Your task to perform on an android device: open app "Adobe Acrobat Reader: Edit PDF" (install if not already installed) Image 0: 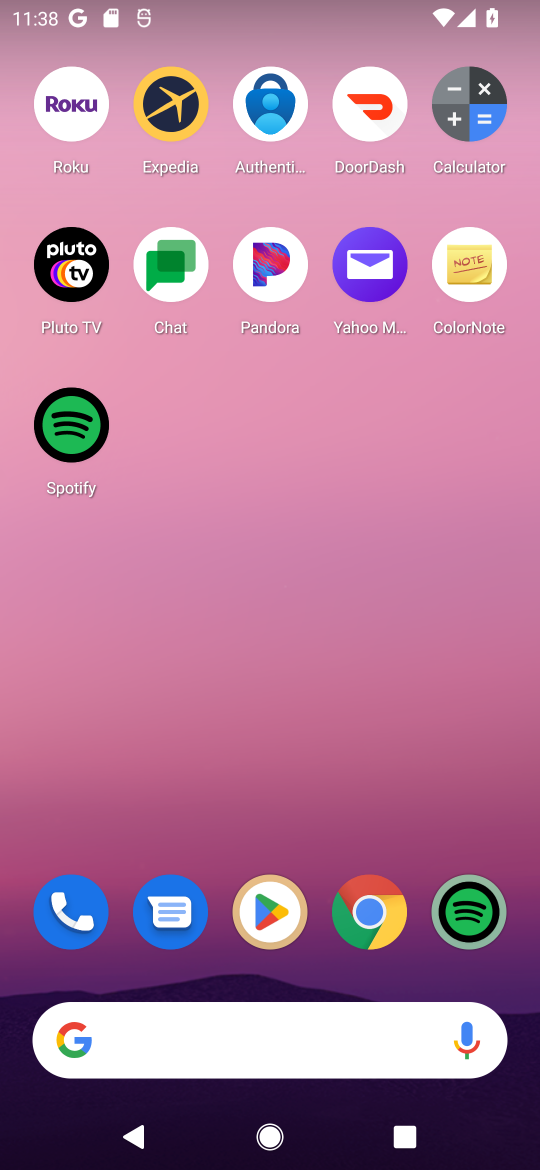
Step 0: click (258, 915)
Your task to perform on an android device: open app "Adobe Acrobat Reader: Edit PDF" (install if not already installed) Image 1: 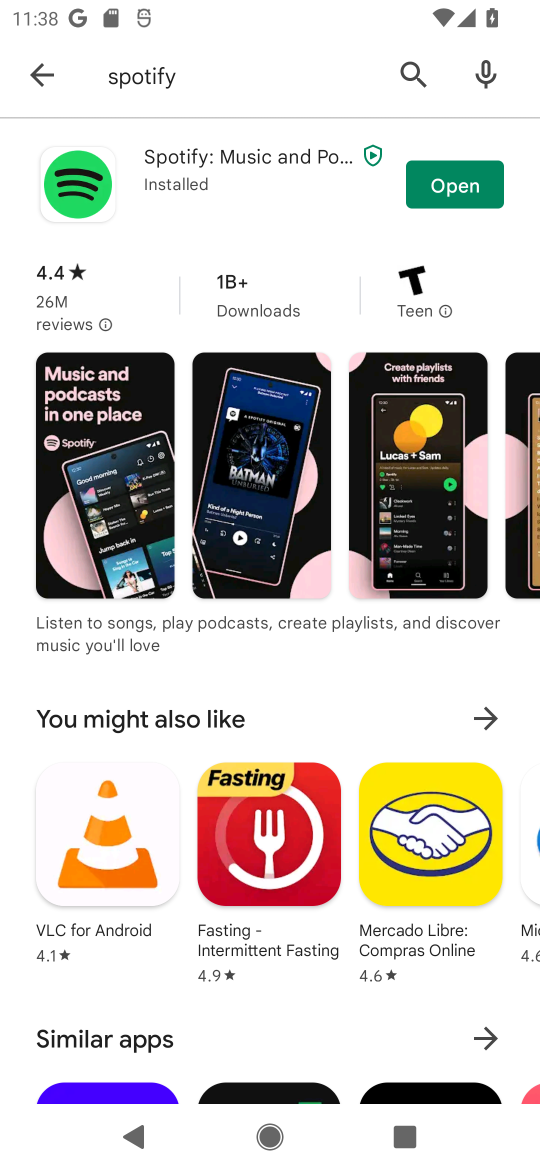
Step 1: click (409, 89)
Your task to perform on an android device: open app "Adobe Acrobat Reader: Edit PDF" (install if not already installed) Image 2: 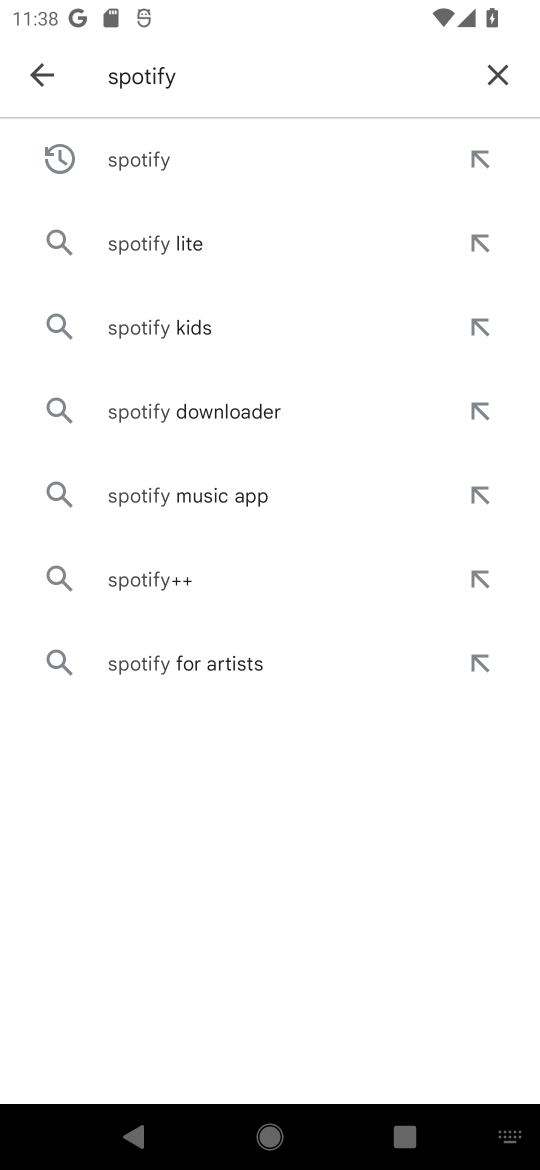
Step 2: click (495, 79)
Your task to perform on an android device: open app "Adobe Acrobat Reader: Edit PDF" (install if not already installed) Image 3: 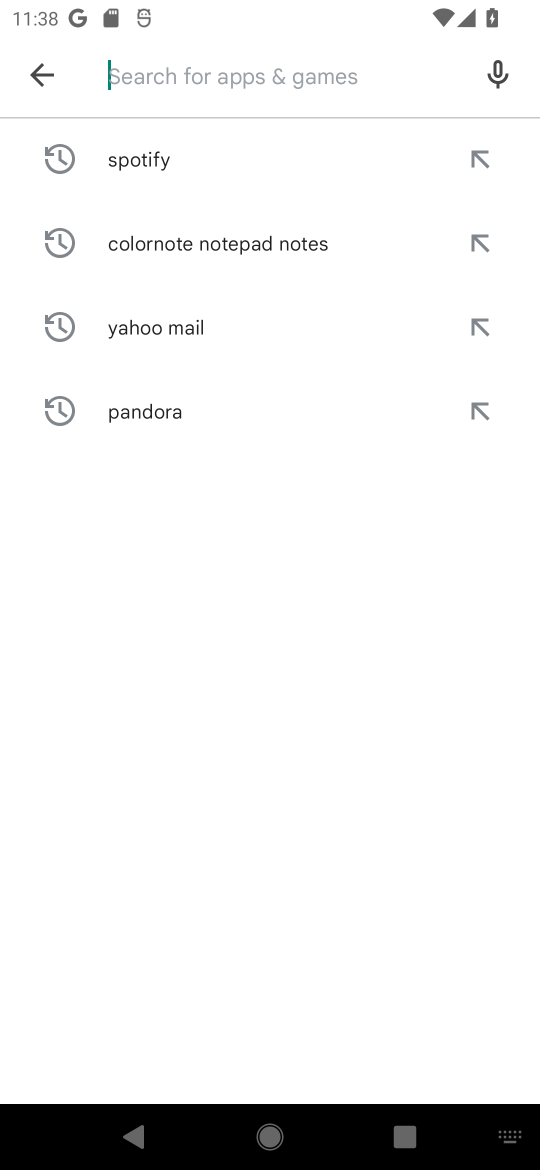
Step 3: click (162, 88)
Your task to perform on an android device: open app "Adobe Acrobat Reader: Edit PDF" (install if not already installed) Image 4: 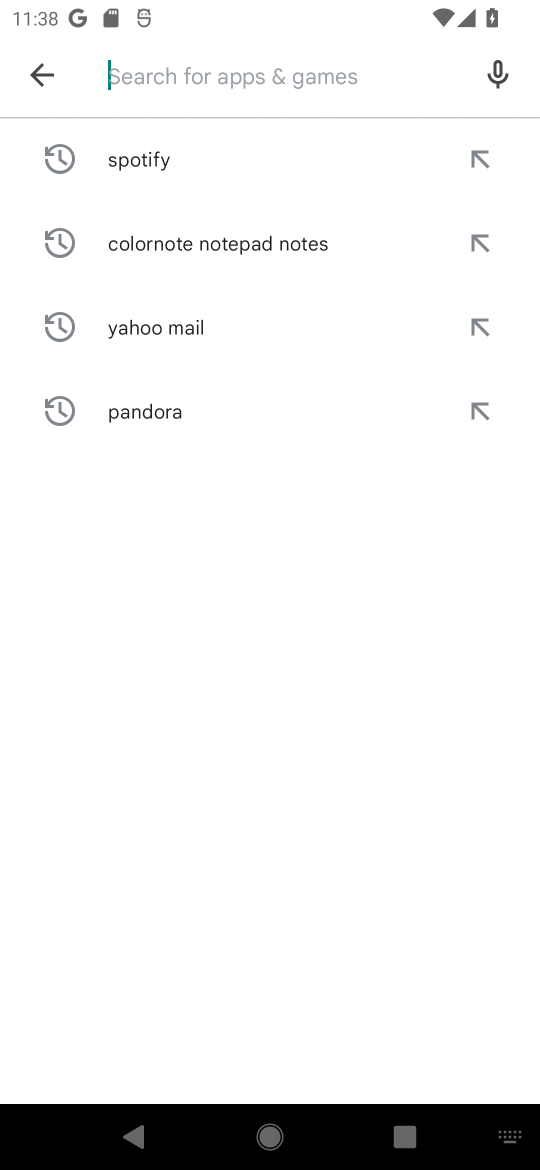
Step 4: type "Adobe Acrobat Reader"
Your task to perform on an android device: open app "Adobe Acrobat Reader: Edit PDF" (install if not already installed) Image 5: 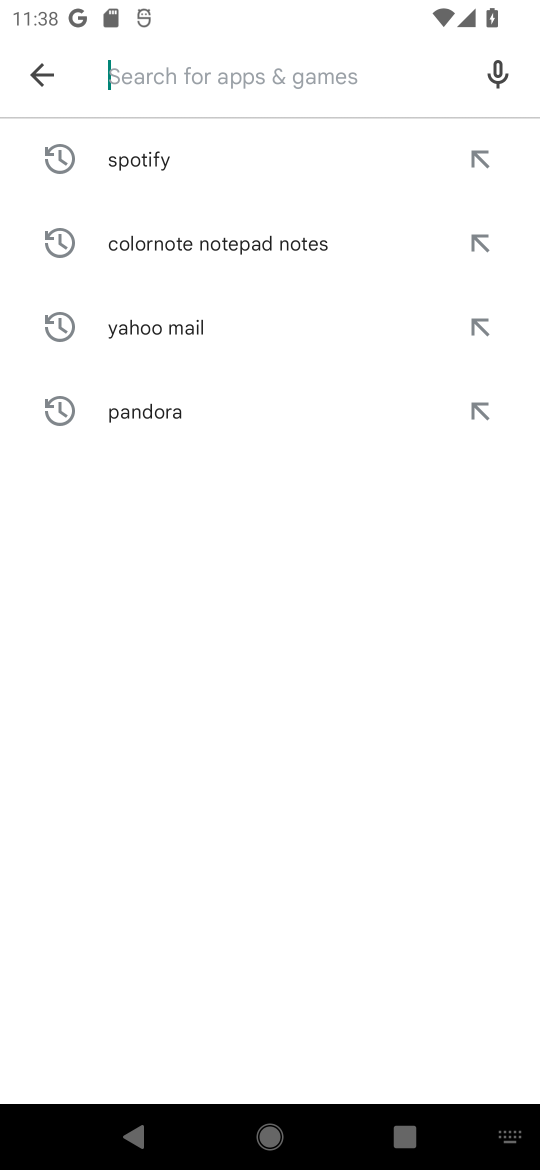
Step 5: click (410, 742)
Your task to perform on an android device: open app "Adobe Acrobat Reader: Edit PDF" (install if not already installed) Image 6: 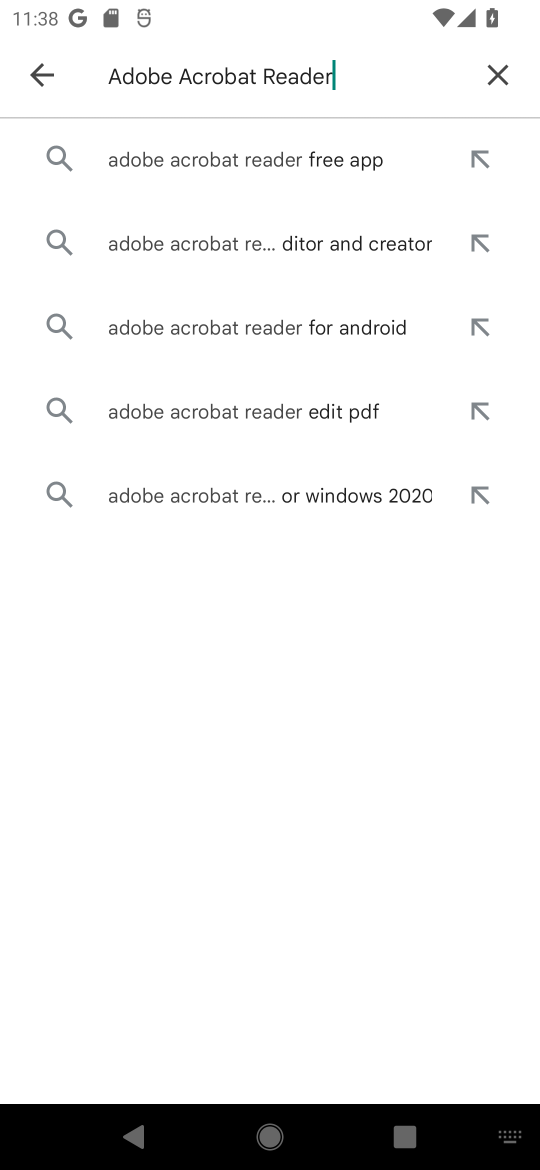
Step 6: click (168, 169)
Your task to perform on an android device: open app "Adobe Acrobat Reader: Edit PDF" (install if not already installed) Image 7: 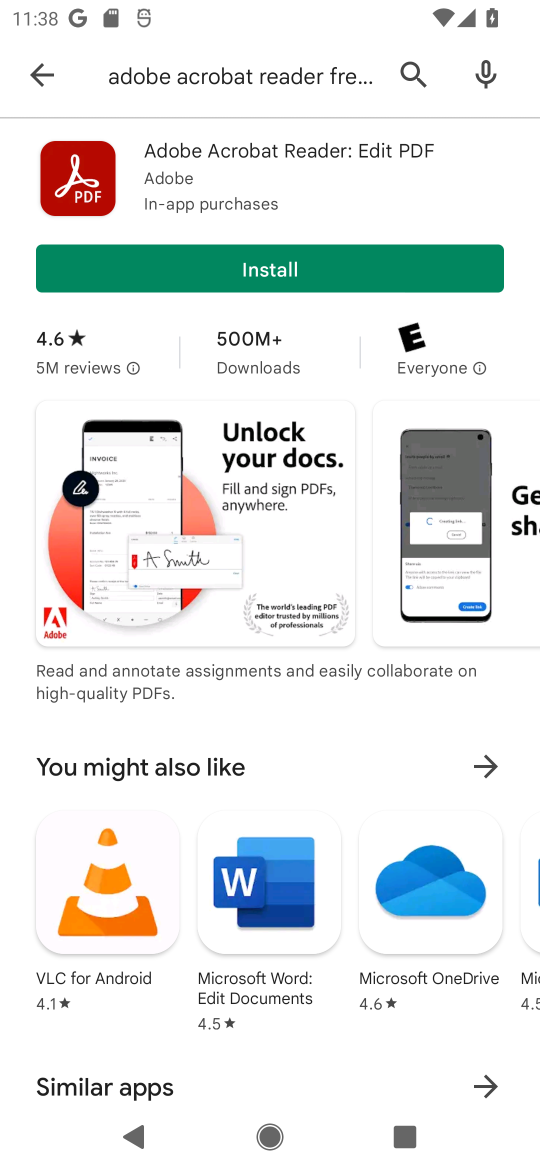
Step 7: click (286, 264)
Your task to perform on an android device: open app "Adobe Acrobat Reader: Edit PDF" (install if not already installed) Image 8: 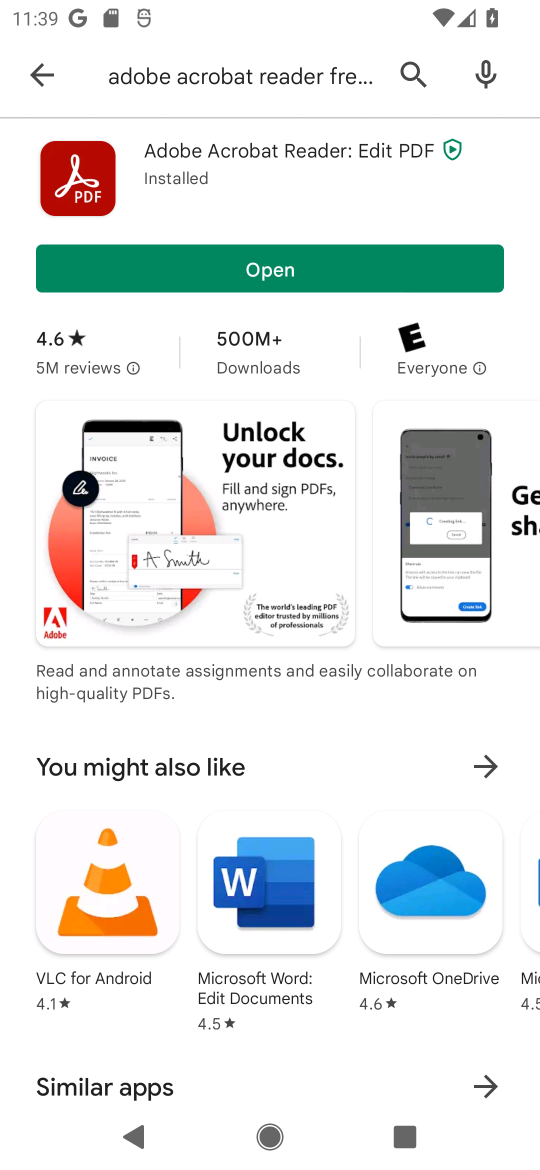
Step 8: click (221, 274)
Your task to perform on an android device: open app "Adobe Acrobat Reader: Edit PDF" (install if not already installed) Image 9: 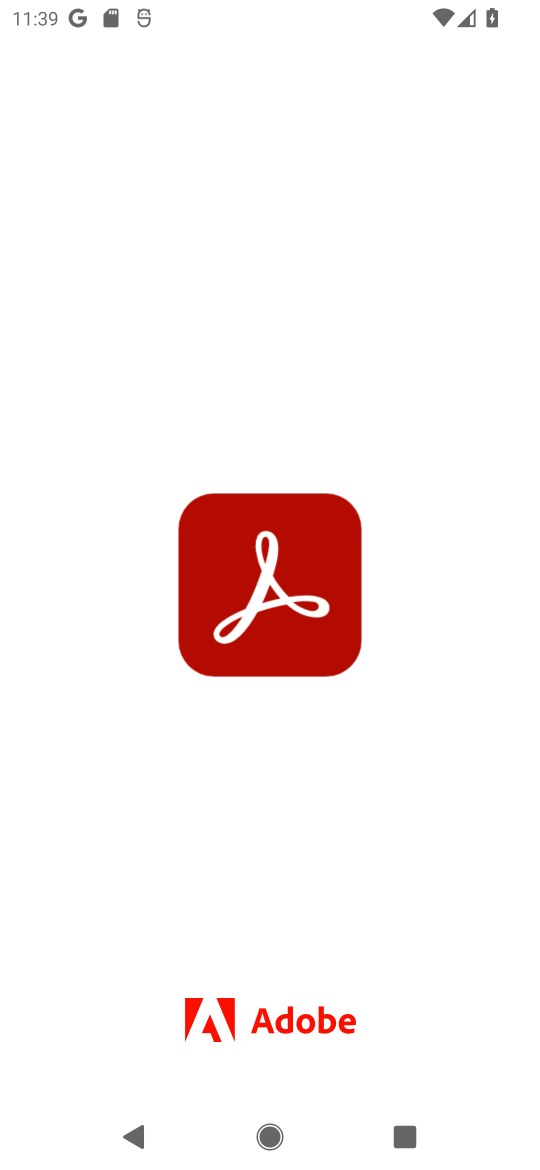
Step 9: task complete